Your task to perform on an android device: open sync settings in chrome Image 0: 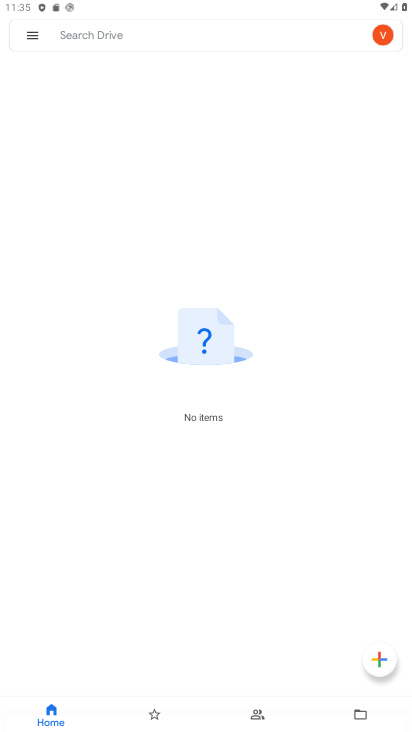
Step 0: press home button
Your task to perform on an android device: open sync settings in chrome Image 1: 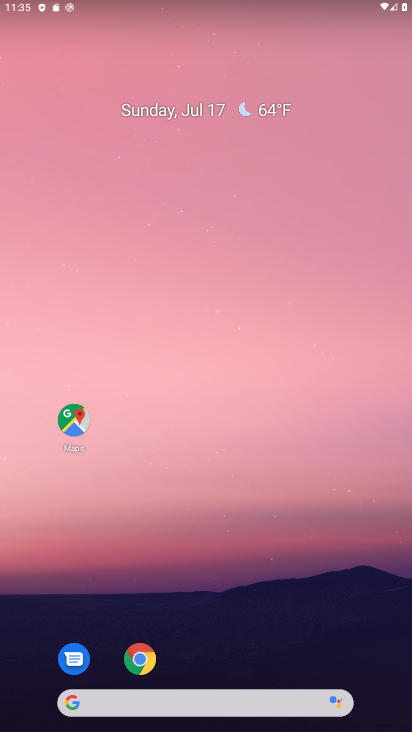
Step 1: click (146, 657)
Your task to perform on an android device: open sync settings in chrome Image 2: 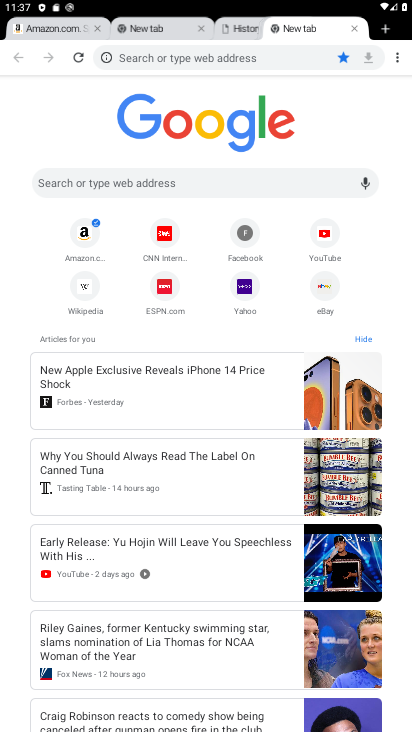
Step 2: click (401, 56)
Your task to perform on an android device: open sync settings in chrome Image 3: 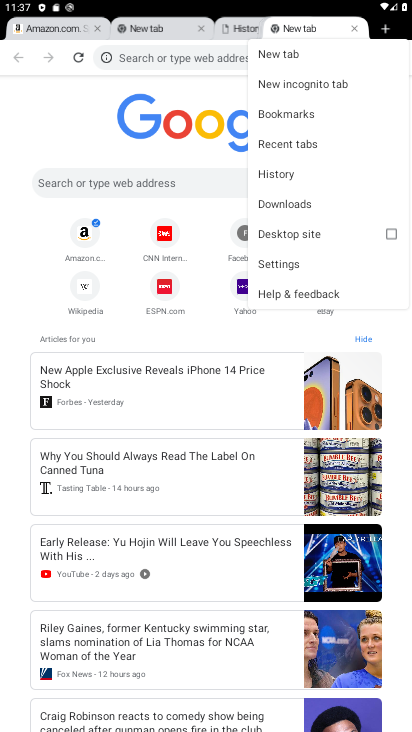
Step 3: click (284, 259)
Your task to perform on an android device: open sync settings in chrome Image 4: 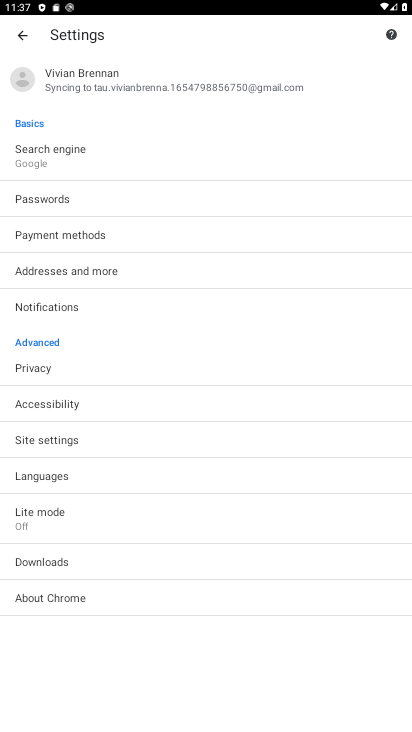
Step 4: task complete